Your task to perform on an android device: Go to settings Image 0: 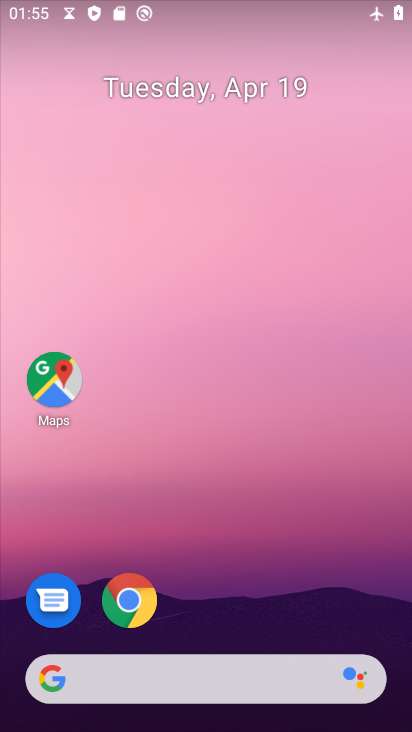
Step 0: drag from (206, 650) to (309, 22)
Your task to perform on an android device: Go to settings Image 1: 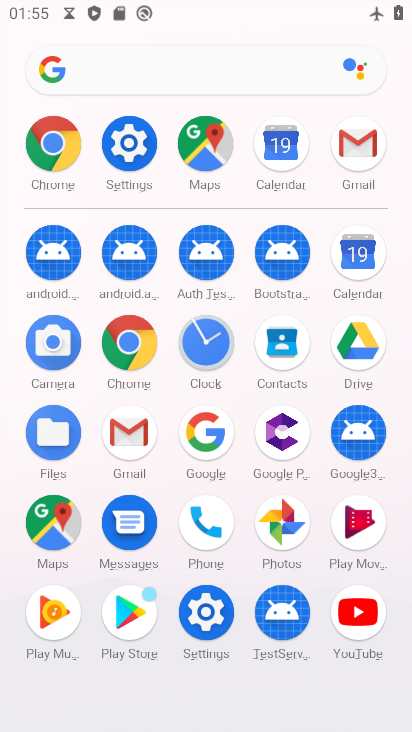
Step 1: click (200, 608)
Your task to perform on an android device: Go to settings Image 2: 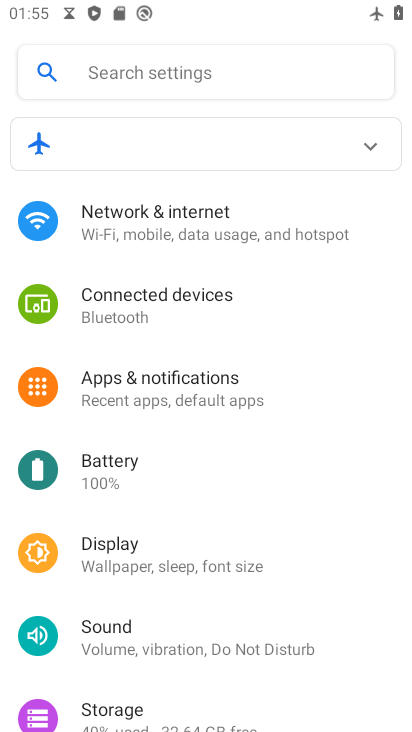
Step 2: task complete